Your task to perform on an android device: Check the weather Image 0: 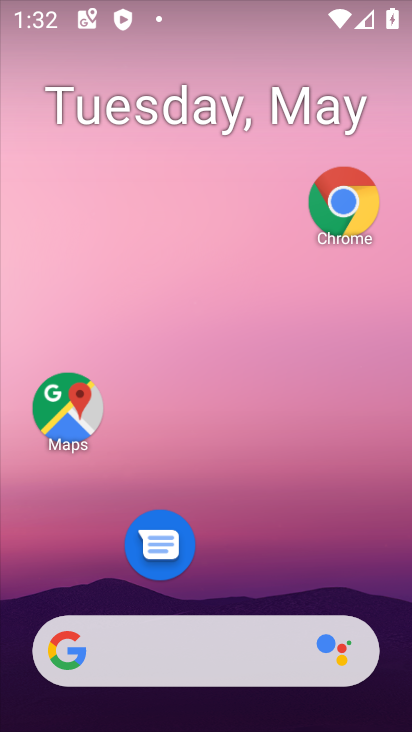
Step 0: click (174, 666)
Your task to perform on an android device: Check the weather Image 1: 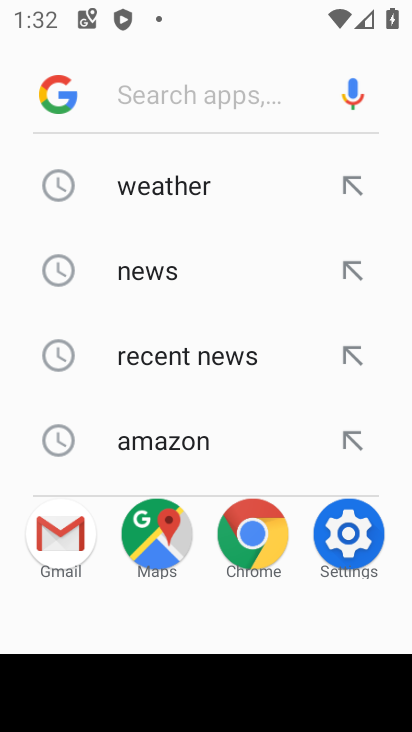
Step 1: click (195, 178)
Your task to perform on an android device: Check the weather Image 2: 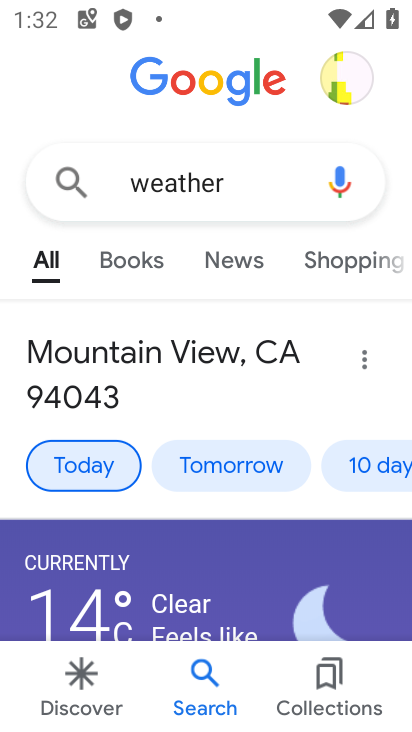
Step 2: task complete